Your task to perform on an android device: Open Youtube and go to "Your channel" Image 0: 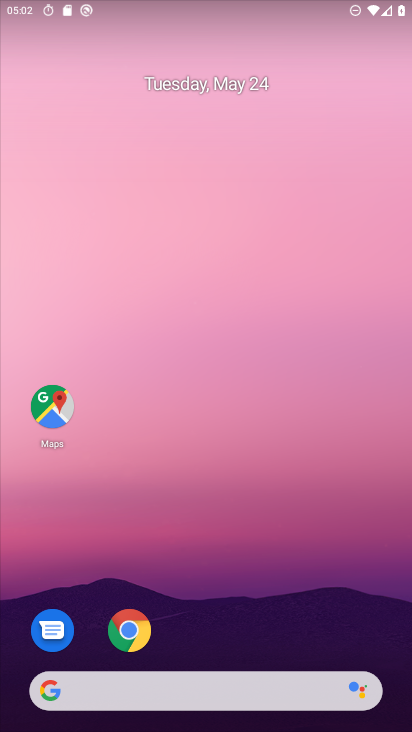
Step 0: click (227, 17)
Your task to perform on an android device: Open Youtube and go to "Your channel" Image 1: 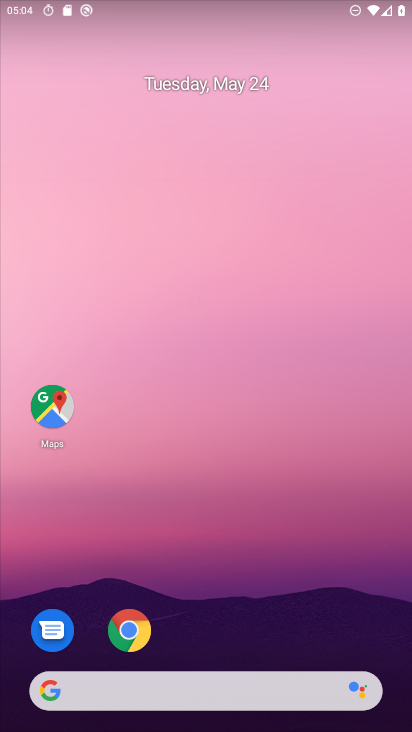
Step 1: drag from (252, 657) to (375, 5)
Your task to perform on an android device: Open Youtube and go to "Your channel" Image 2: 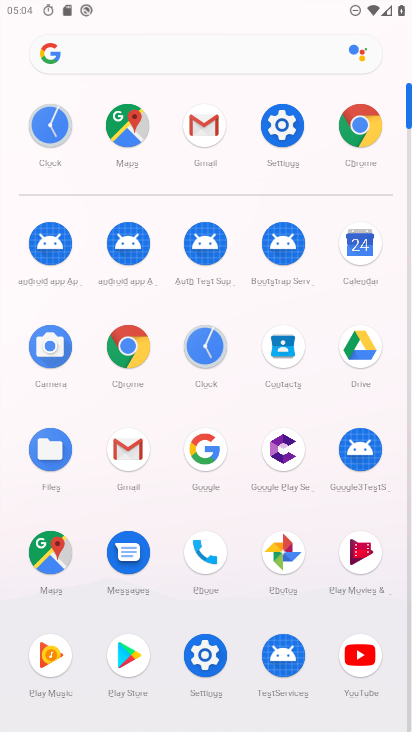
Step 2: click (364, 657)
Your task to perform on an android device: Open Youtube and go to "Your channel" Image 3: 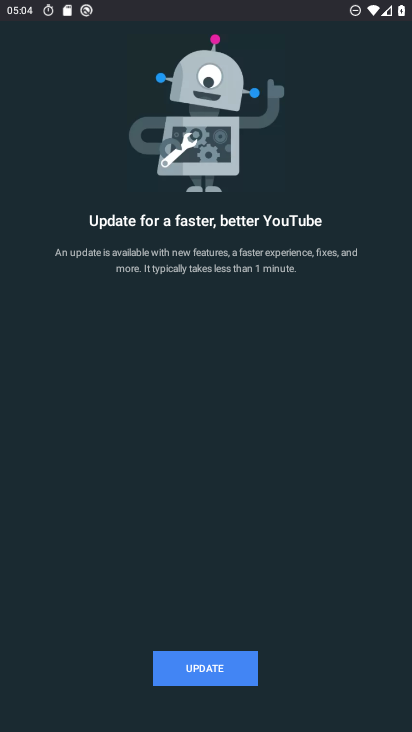
Step 3: click (236, 668)
Your task to perform on an android device: Open Youtube and go to "Your channel" Image 4: 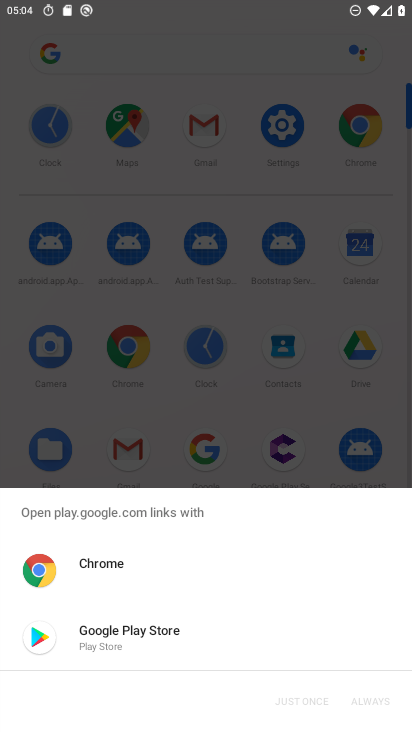
Step 4: click (100, 646)
Your task to perform on an android device: Open Youtube and go to "Your channel" Image 5: 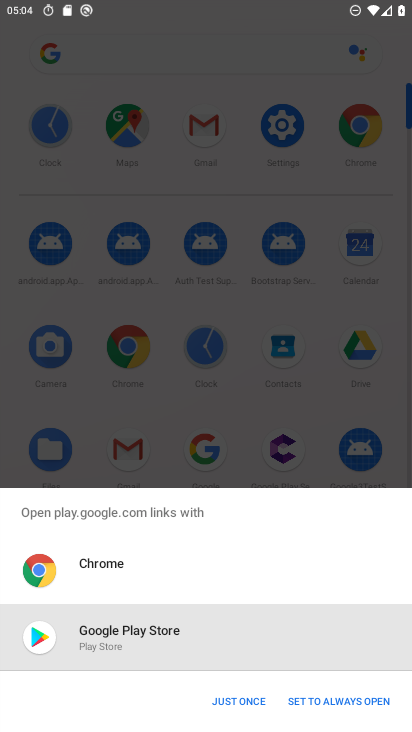
Step 5: click (255, 707)
Your task to perform on an android device: Open Youtube and go to "Your channel" Image 6: 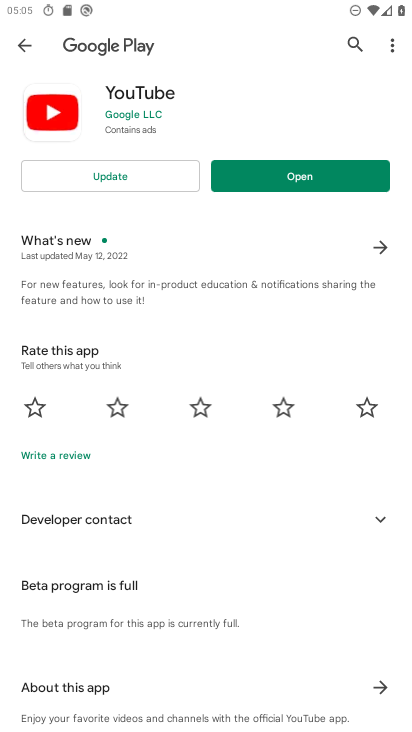
Step 6: click (67, 170)
Your task to perform on an android device: Open Youtube and go to "Your channel" Image 7: 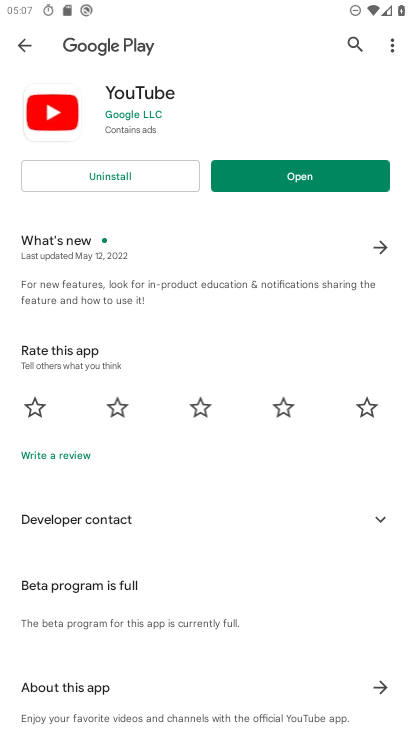
Step 7: click (285, 185)
Your task to perform on an android device: Open Youtube and go to "Your channel" Image 8: 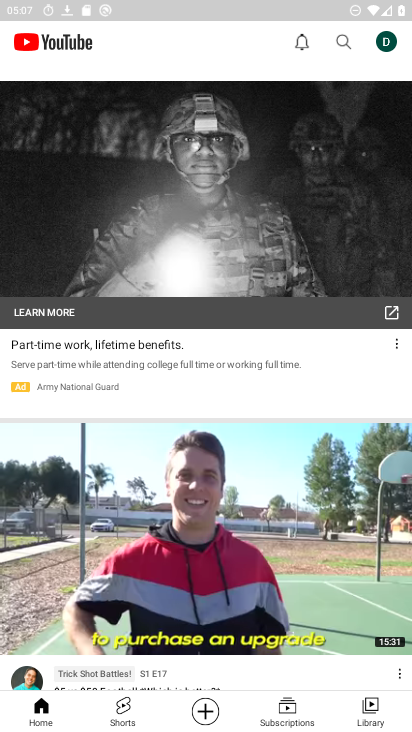
Step 8: click (351, 39)
Your task to perform on an android device: Open Youtube and go to "Your channel" Image 9: 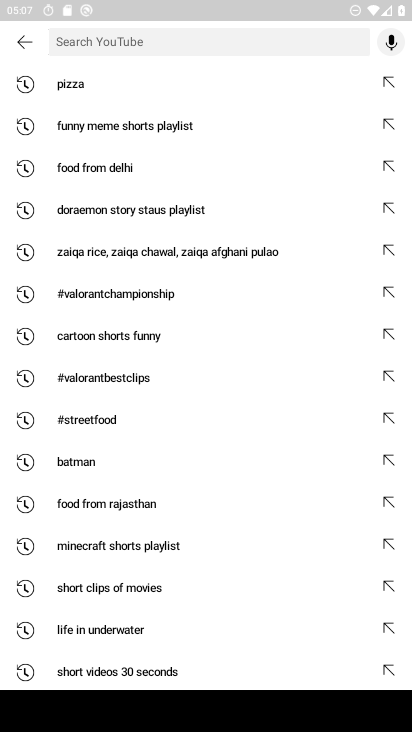
Step 9: type "ypour channel"
Your task to perform on an android device: Open Youtube and go to "Your channel" Image 10: 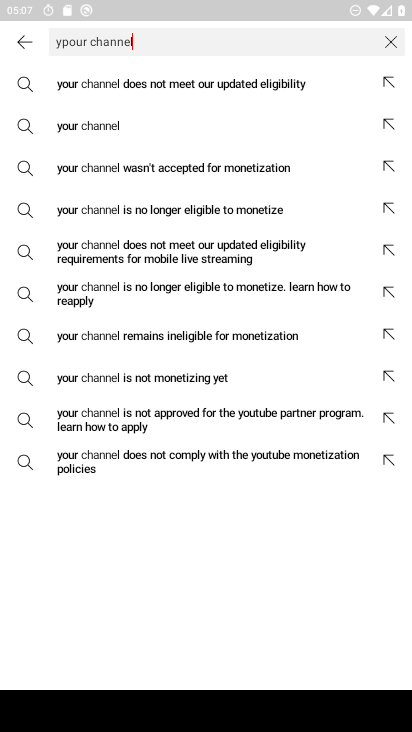
Step 10: click (87, 136)
Your task to perform on an android device: Open Youtube and go to "Your channel" Image 11: 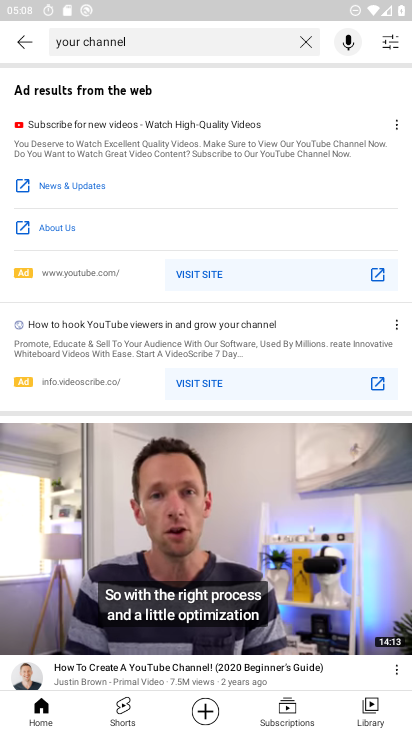
Step 11: task complete